Your task to perform on an android device: Open Google Chrome and click the shortcut for Amazon.com Image 0: 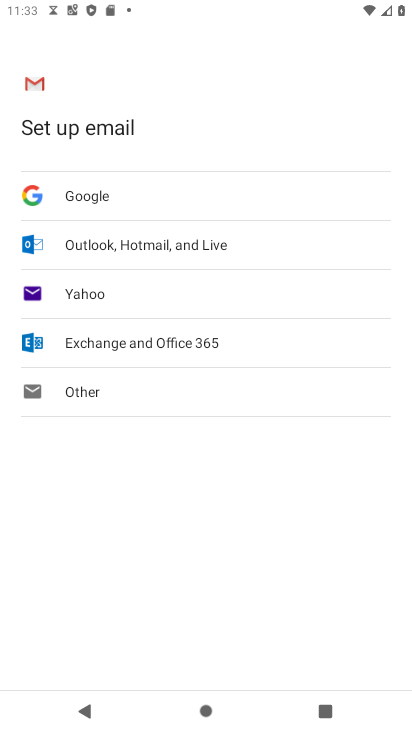
Step 0: press home button
Your task to perform on an android device: Open Google Chrome and click the shortcut for Amazon.com Image 1: 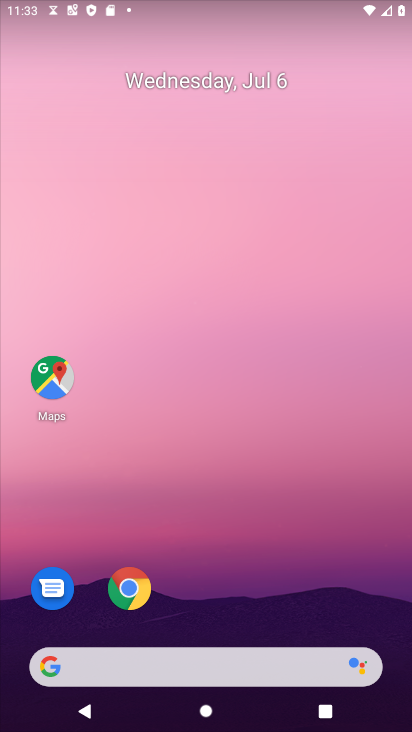
Step 1: drag from (297, 616) to (295, 251)
Your task to perform on an android device: Open Google Chrome and click the shortcut for Amazon.com Image 2: 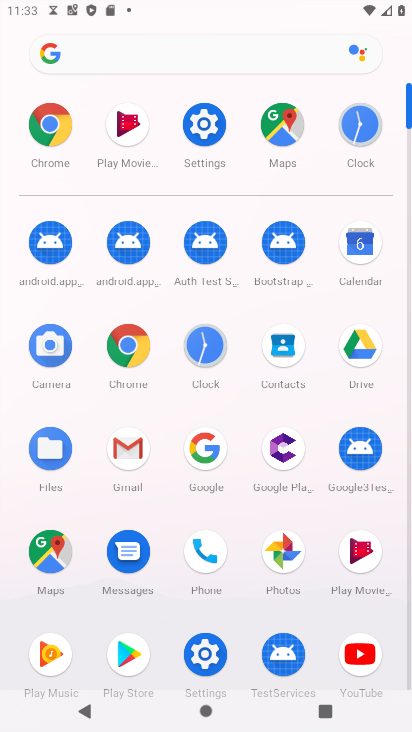
Step 2: click (68, 123)
Your task to perform on an android device: Open Google Chrome and click the shortcut for Amazon.com Image 3: 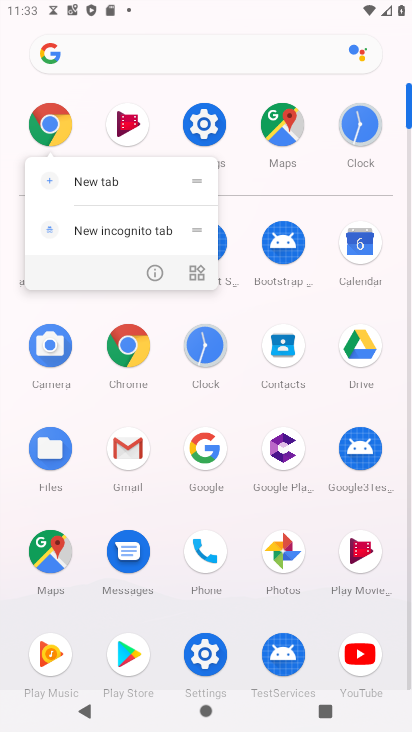
Step 3: click (45, 127)
Your task to perform on an android device: Open Google Chrome and click the shortcut for Amazon.com Image 4: 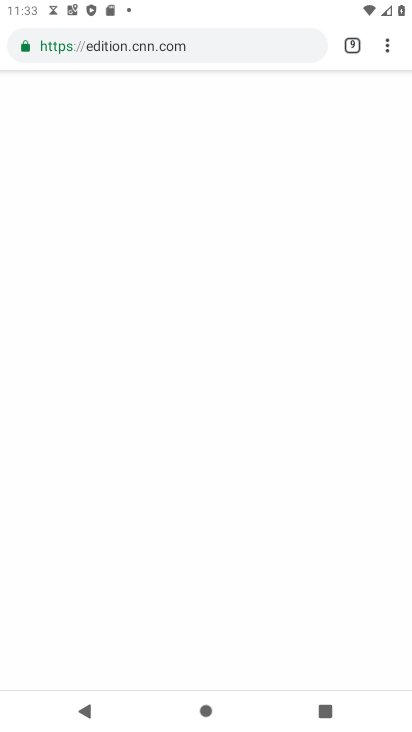
Step 4: click (45, 127)
Your task to perform on an android device: Open Google Chrome and click the shortcut for Amazon.com Image 5: 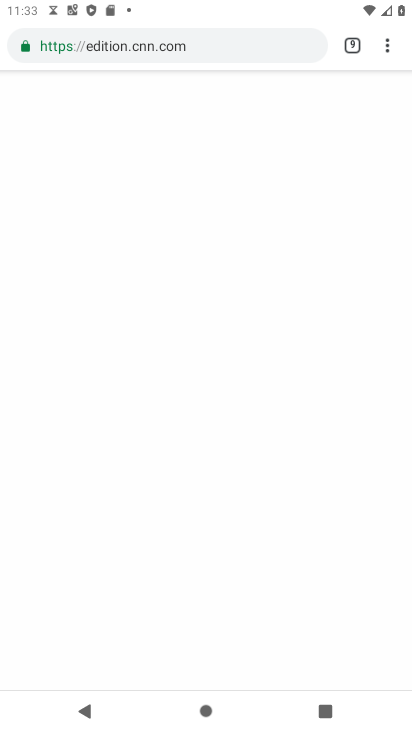
Step 5: click (378, 49)
Your task to perform on an android device: Open Google Chrome and click the shortcut for Amazon.com Image 6: 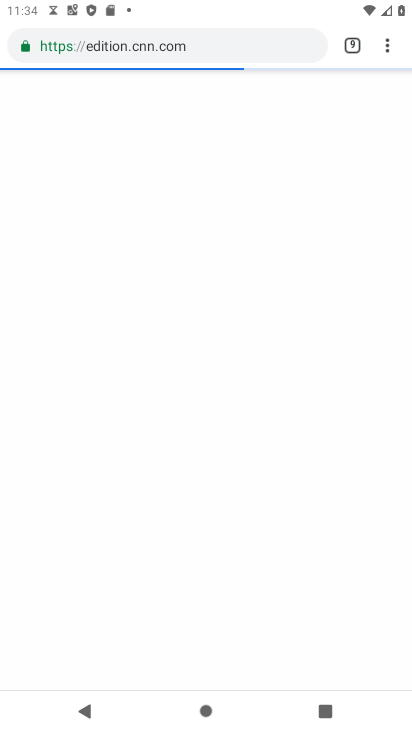
Step 6: click (386, 43)
Your task to perform on an android device: Open Google Chrome and click the shortcut for Amazon.com Image 7: 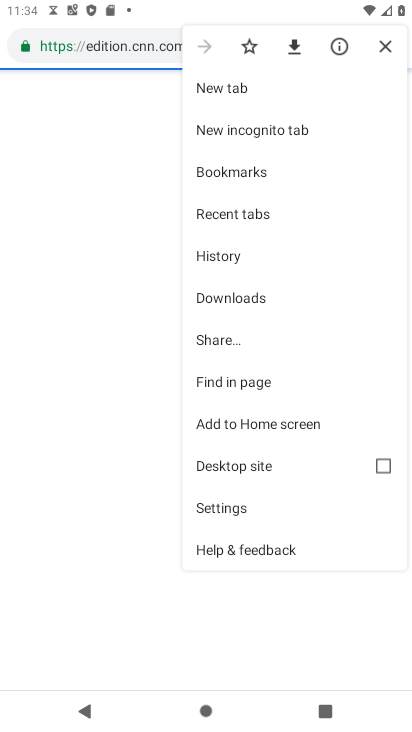
Step 7: click (228, 81)
Your task to perform on an android device: Open Google Chrome and click the shortcut for Amazon.com Image 8: 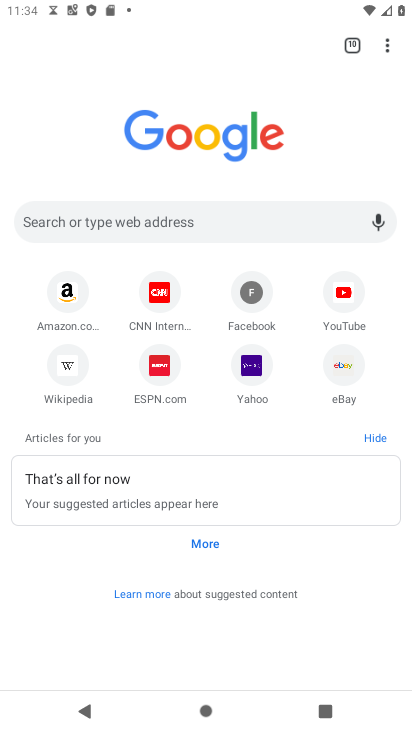
Step 8: click (74, 285)
Your task to perform on an android device: Open Google Chrome and click the shortcut for Amazon.com Image 9: 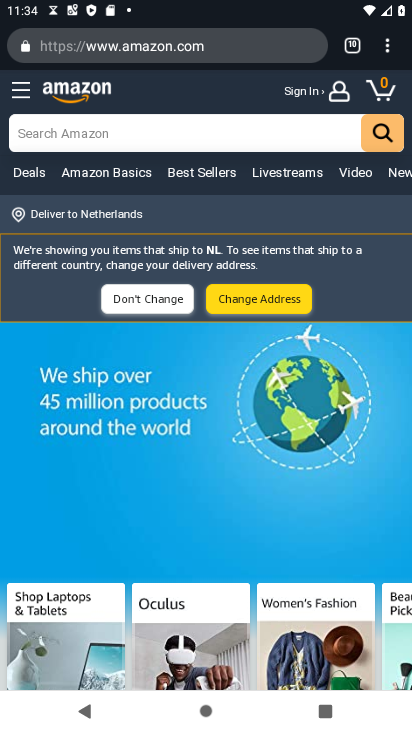
Step 9: task complete